Your task to perform on an android device: When is my next meeting? Image 0: 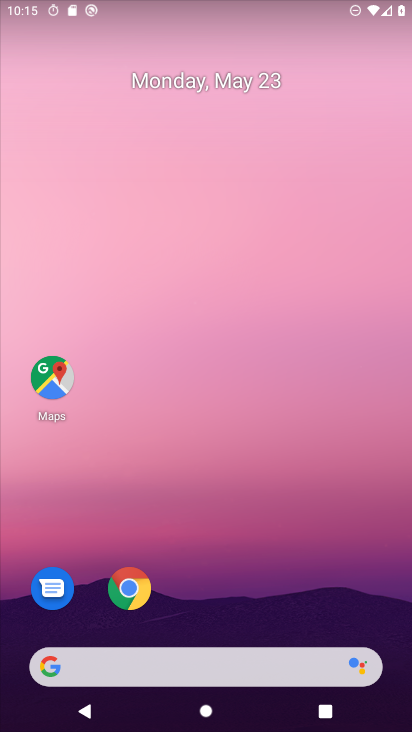
Step 0: drag from (386, 525) to (334, 142)
Your task to perform on an android device: When is my next meeting? Image 1: 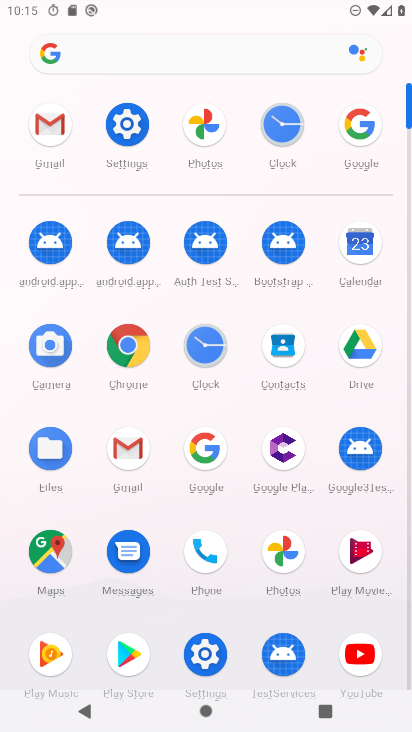
Step 1: click (121, 115)
Your task to perform on an android device: When is my next meeting? Image 2: 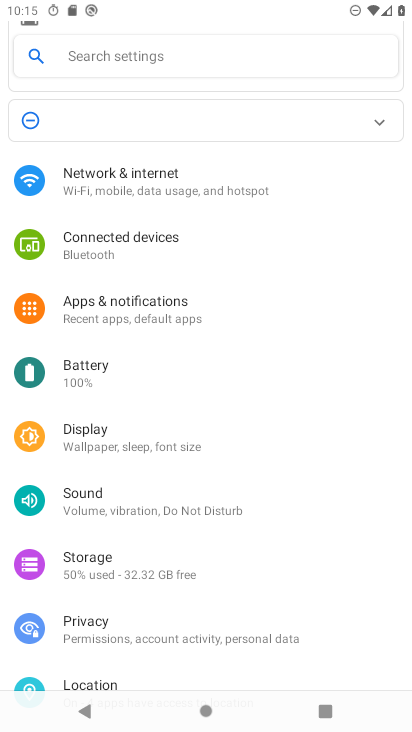
Step 2: press home button
Your task to perform on an android device: When is my next meeting? Image 3: 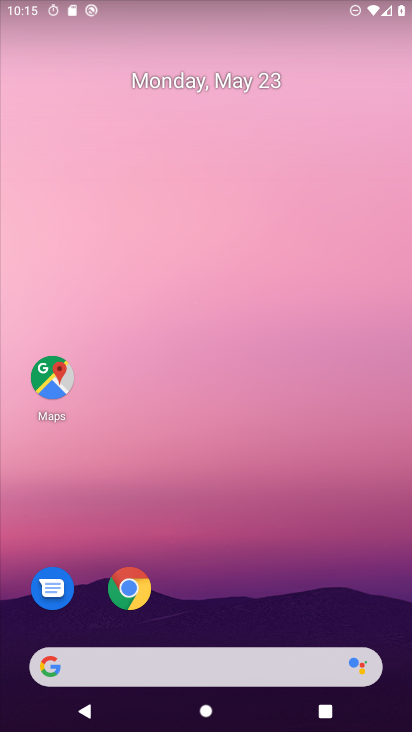
Step 3: drag from (393, 700) to (322, 68)
Your task to perform on an android device: When is my next meeting? Image 4: 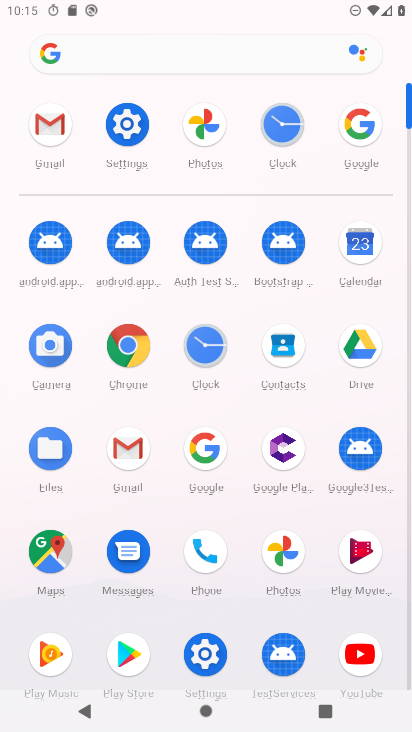
Step 4: click (359, 244)
Your task to perform on an android device: When is my next meeting? Image 5: 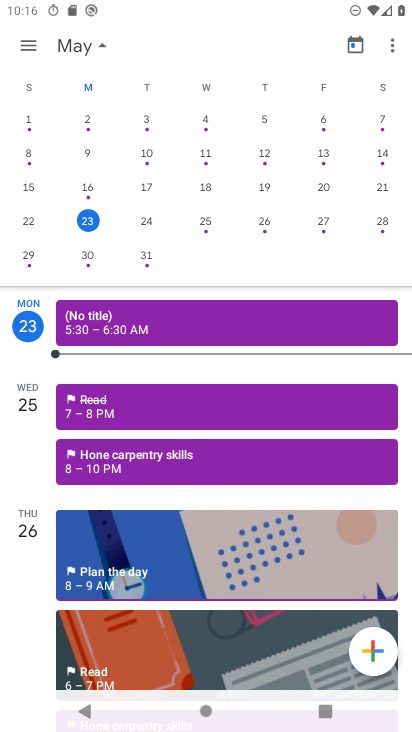
Step 5: click (22, 42)
Your task to perform on an android device: When is my next meeting? Image 6: 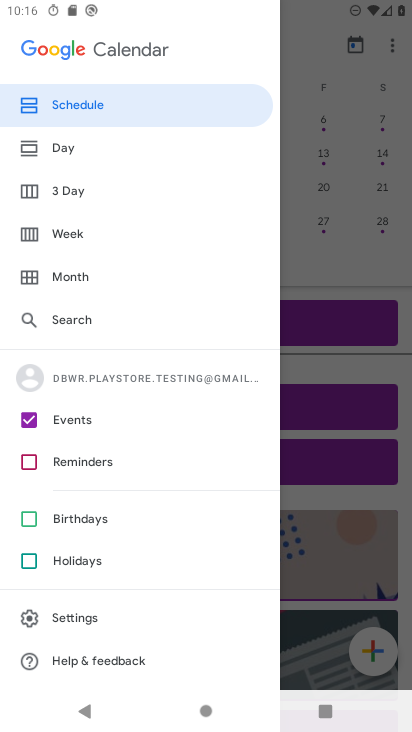
Step 6: click (90, 101)
Your task to perform on an android device: When is my next meeting? Image 7: 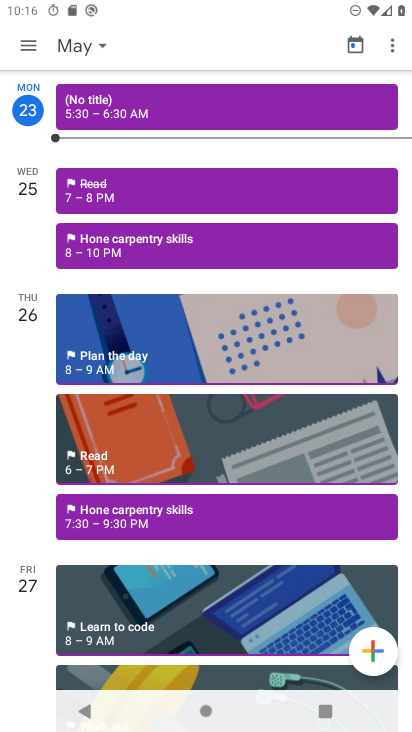
Step 7: task complete